Your task to perform on an android device: Search for vegetarian restaurants on Maps Image 0: 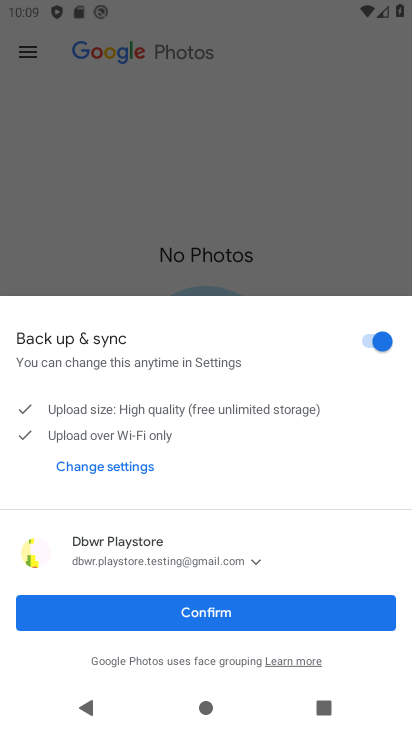
Step 0: press home button
Your task to perform on an android device: Search for vegetarian restaurants on Maps Image 1: 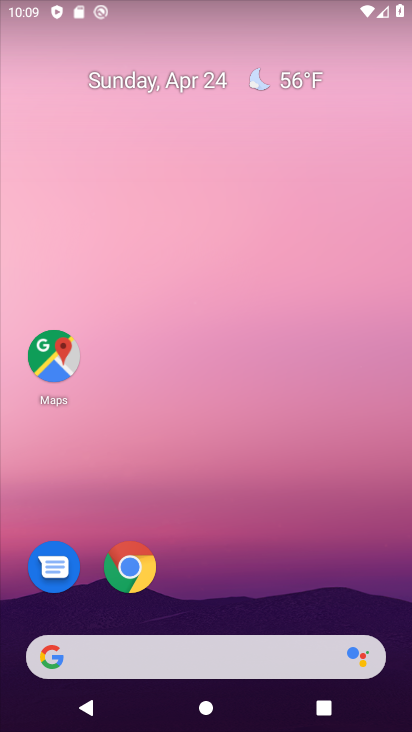
Step 1: drag from (187, 655) to (288, 129)
Your task to perform on an android device: Search for vegetarian restaurants on Maps Image 2: 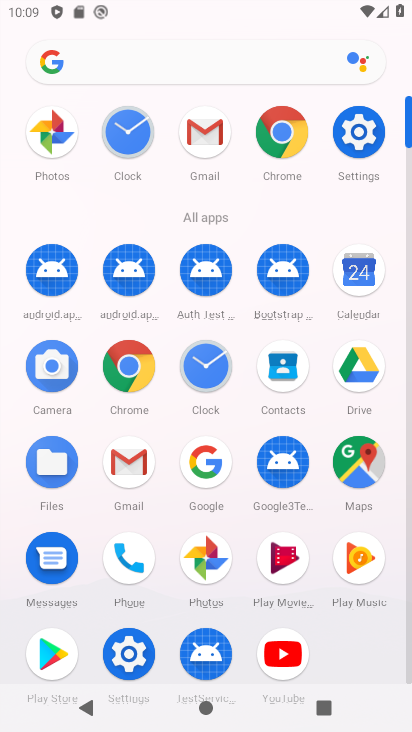
Step 2: click (365, 478)
Your task to perform on an android device: Search for vegetarian restaurants on Maps Image 3: 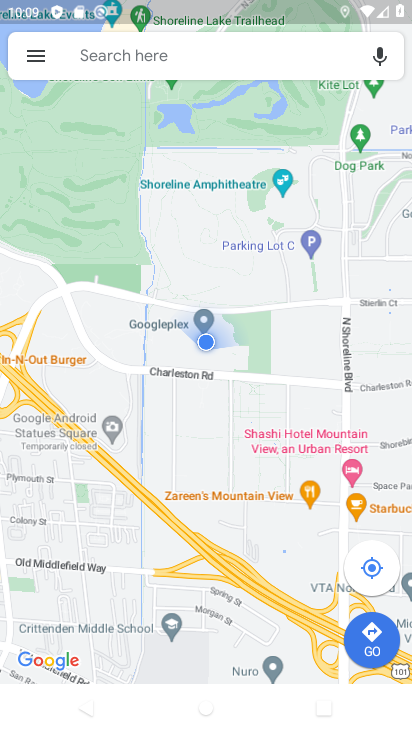
Step 3: click (207, 54)
Your task to perform on an android device: Search for vegetarian restaurants on Maps Image 4: 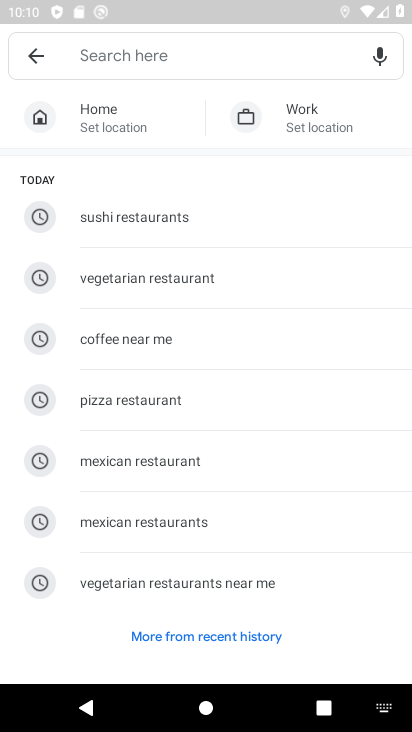
Step 4: click (192, 284)
Your task to perform on an android device: Search for vegetarian restaurants on Maps Image 5: 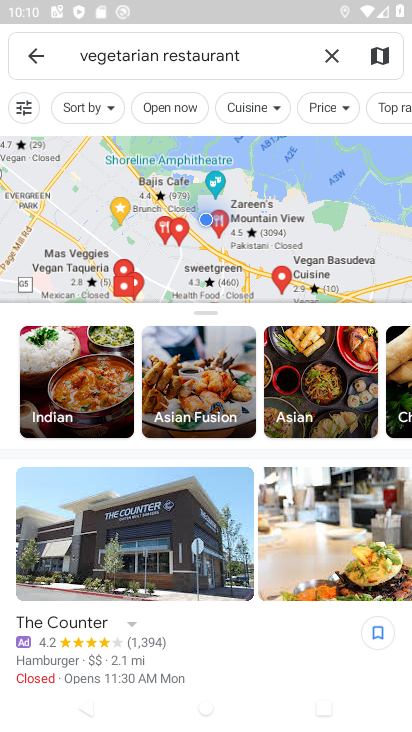
Step 5: task complete